Your task to perform on an android device: What's on my calendar tomorrow? Image 0: 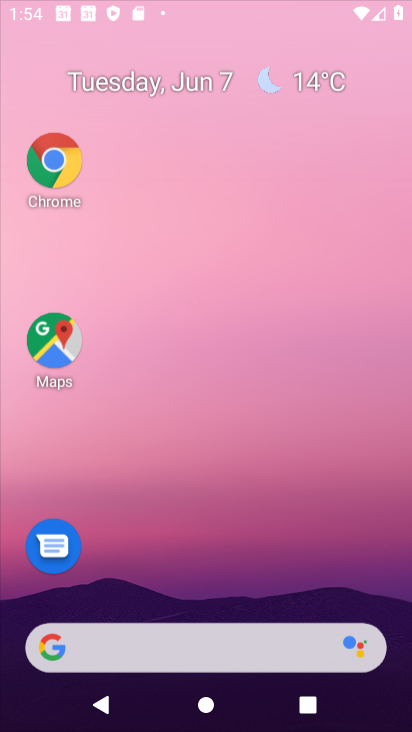
Step 0: click (355, 107)
Your task to perform on an android device: What's on my calendar tomorrow? Image 1: 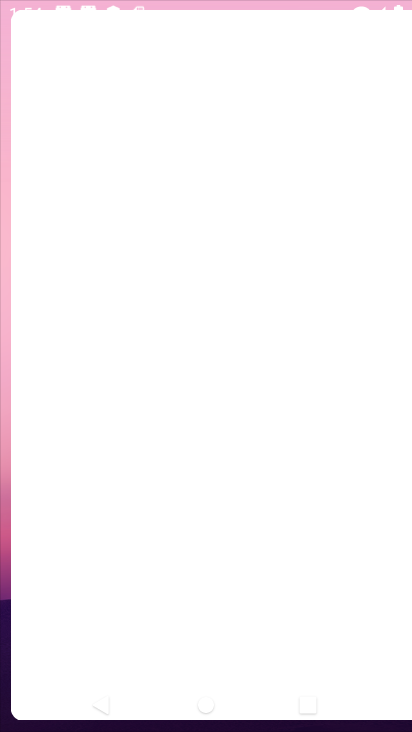
Step 1: drag from (163, 577) to (211, 50)
Your task to perform on an android device: What's on my calendar tomorrow? Image 2: 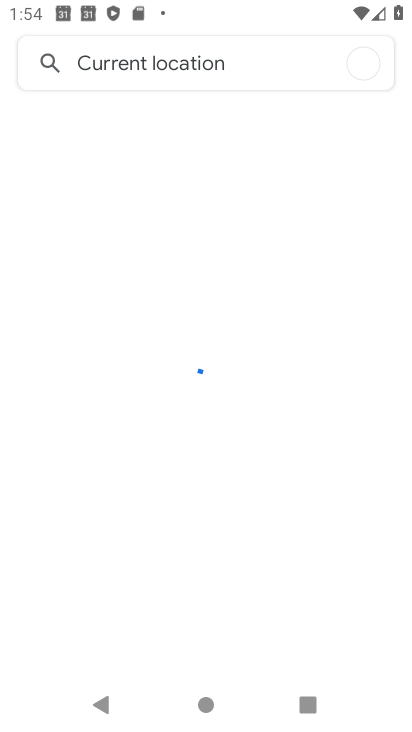
Step 2: press home button
Your task to perform on an android device: What's on my calendar tomorrow? Image 3: 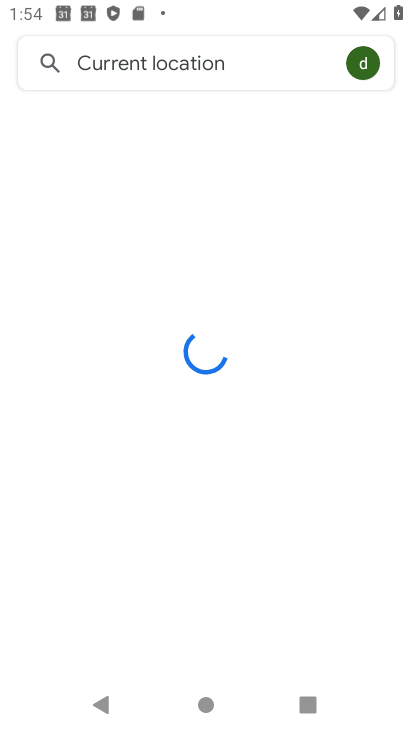
Step 3: drag from (159, 600) to (228, 168)
Your task to perform on an android device: What's on my calendar tomorrow? Image 4: 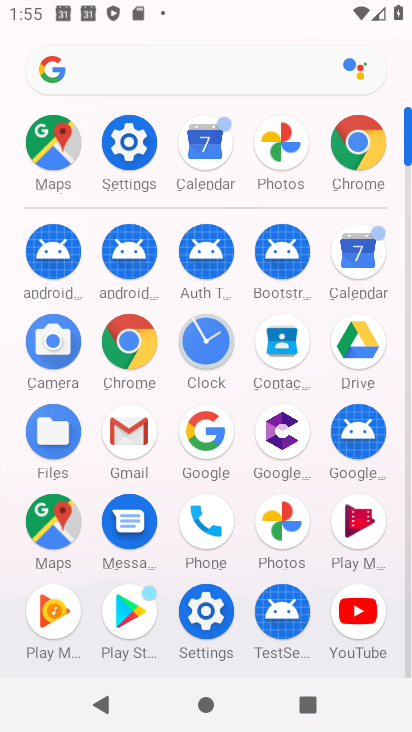
Step 4: click (366, 242)
Your task to perform on an android device: What's on my calendar tomorrow? Image 5: 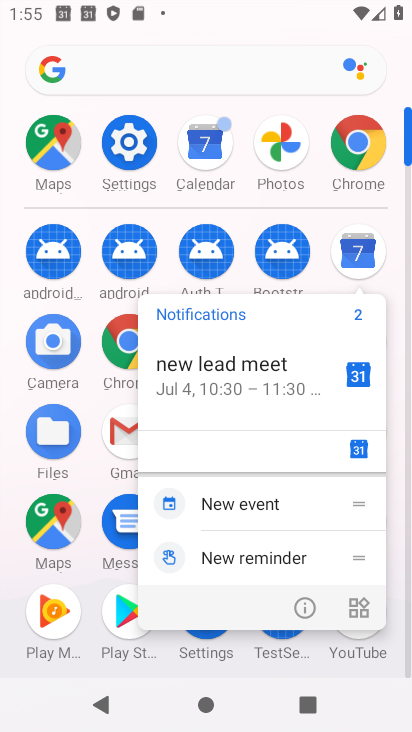
Step 5: click (307, 608)
Your task to perform on an android device: What's on my calendar tomorrow? Image 6: 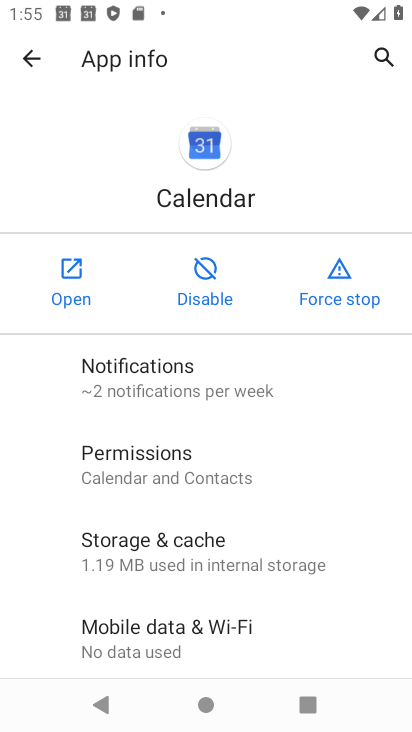
Step 6: click (71, 282)
Your task to perform on an android device: What's on my calendar tomorrow? Image 7: 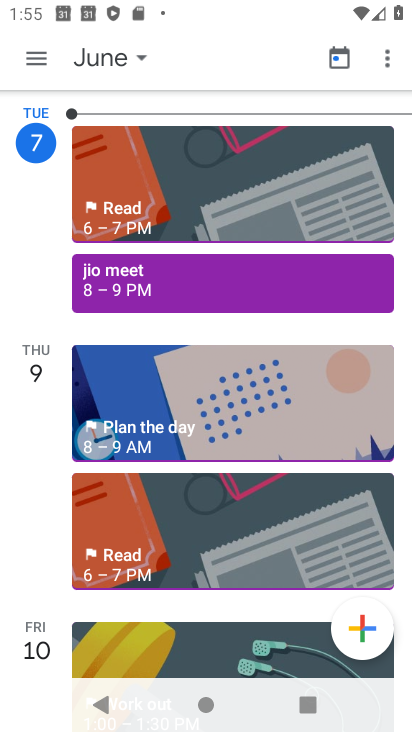
Step 7: click (136, 56)
Your task to perform on an android device: What's on my calendar tomorrow? Image 8: 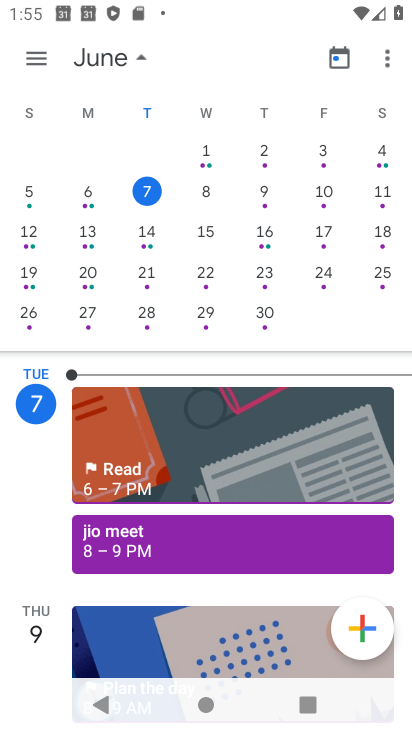
Step 8: click (194, 184)
Your task to perform on an android device: What's on my calendar tomorrow? Image 9: 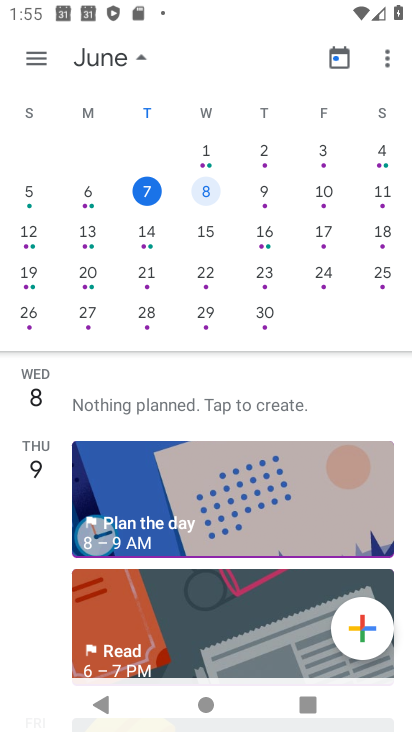
Step 9: task complete